Your task to perform on an android device: Search for sushi restaurants on Maps Image 0: 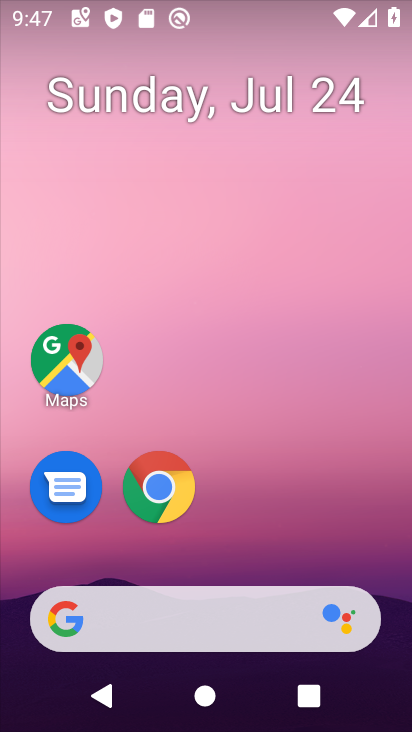
Step 0: click (85, 371)
Your task to perform on an android device: Search for sushi restaurants on Maps Image 1: 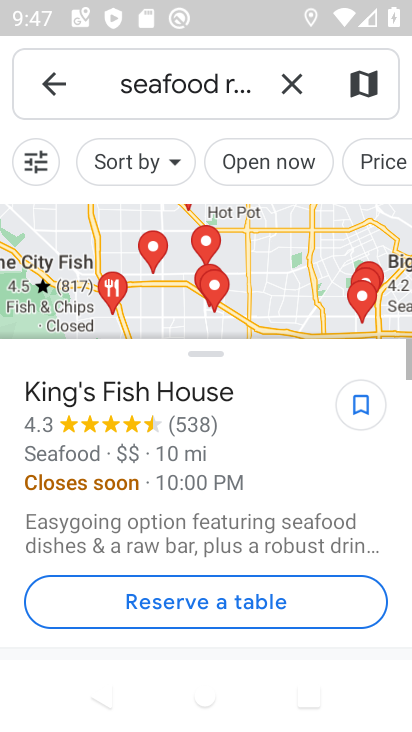
Step 1: click (293, 73)
Your task to perform on an android device: Search for sushi restaurants on Maps Image 2: 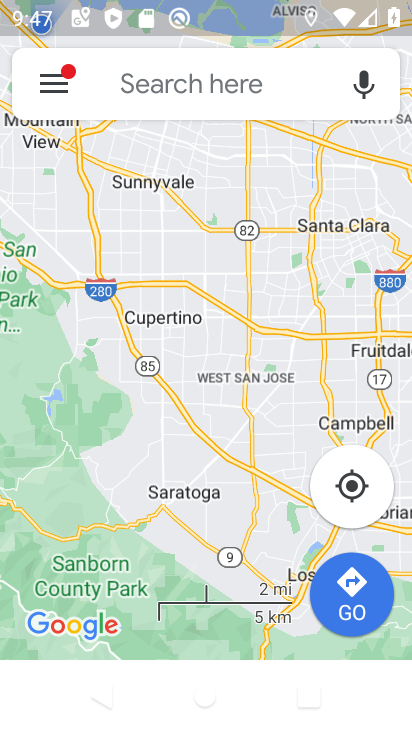
Step 2: click (190, 81)
Your task to perform on an android device: Search for sushi restaurants on Maps Image 3: 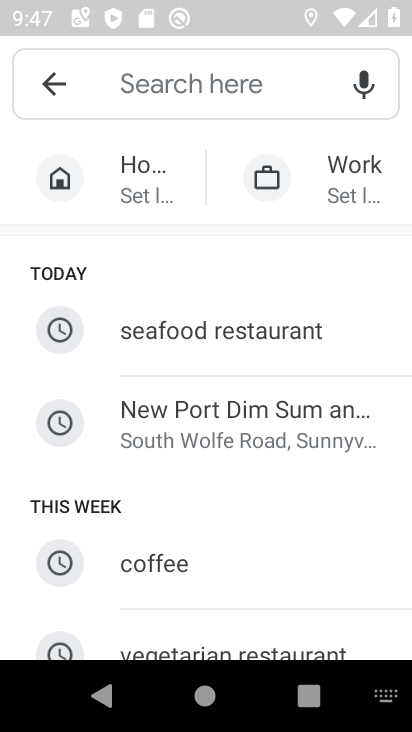
Step 3: type "sushi "
Your task to perform on an android device: Search for sushi restaurants on Maps Image 4: 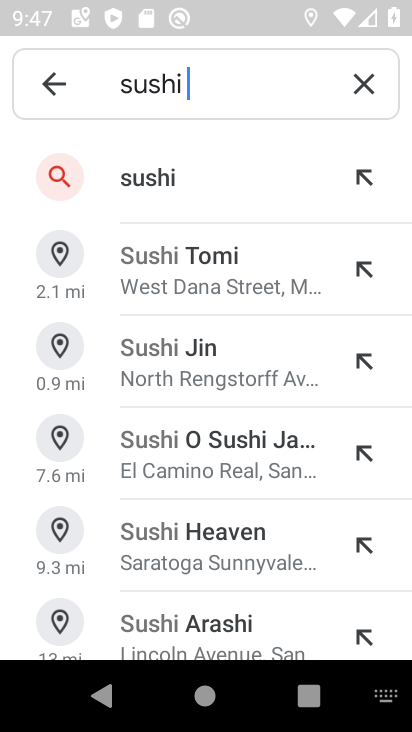
Step 4: drag from (200, 564) to (286, 9)
Your task to perform on an android device: Search for sushi restaurants on Maps Image 5: 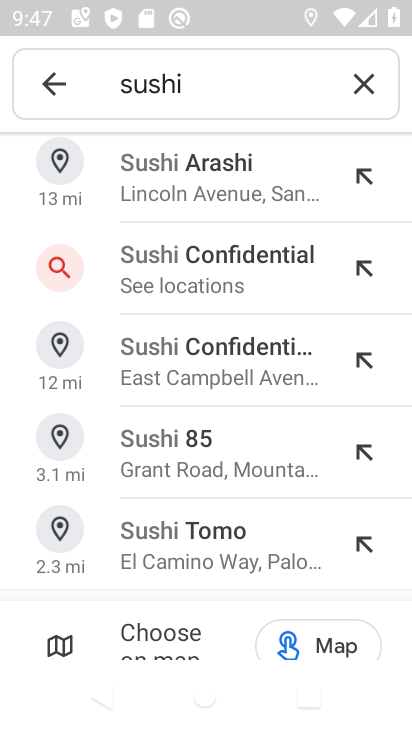
Step 5: drag from (263, 217) to (402, 686)
Your task to perform on an android device: Search for sushi restaurants on Maps Image 6: 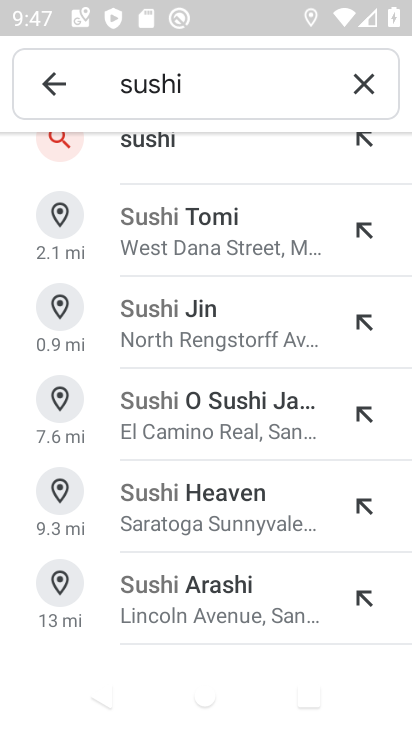
Step 6: type " restaurants"
Your task to perform on an android device: Search for sushi restaurants on Maps Image 7: 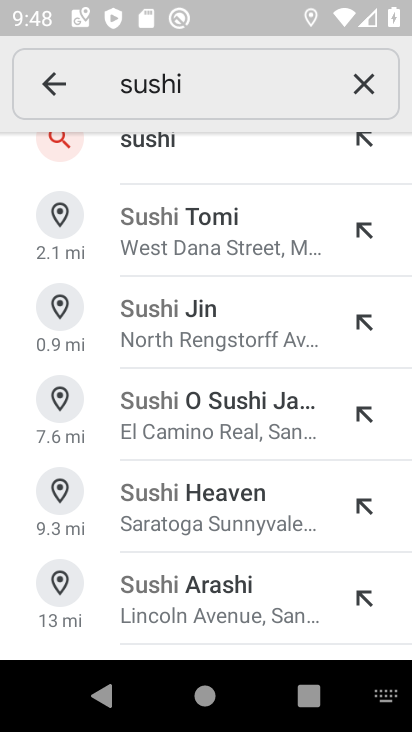
Step 7: click (213, 71)
Your task to perform on an android device: Search for sushi restaurants on Maps Image 8: 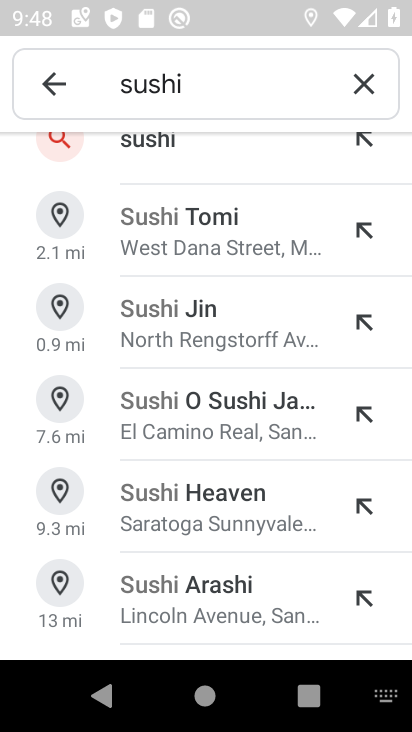
Step 8: type "restaurants"
Your task to perform on an android device: Search for sushi restaurants on Maps Image 9: 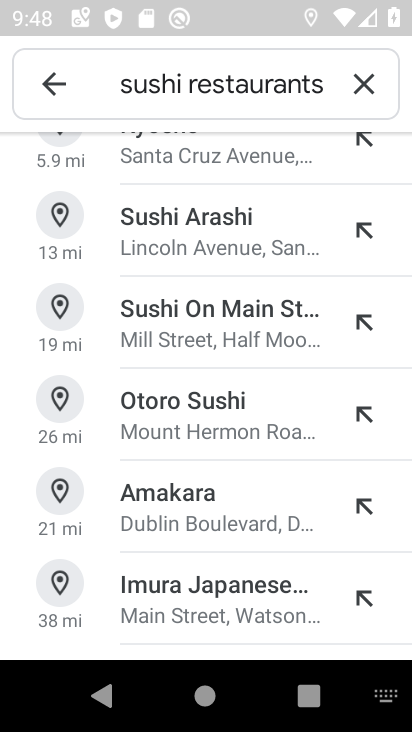
Step 9: drag from (280, 199) to (250, 714)
Your task to perform on an android device: Search for sushi restaurants on Maps Image 10: 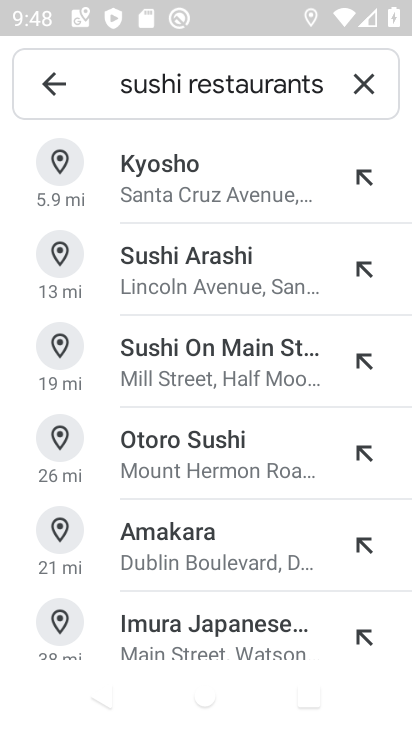
Step 10: drag from (209, 161) to (128, 690)
Your task to perform on an android device: Search for sushi restaurants on Maps Image 11: 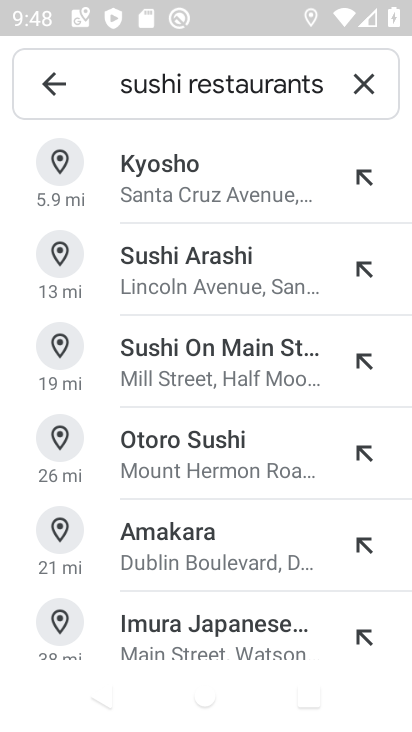
Step 11: click (324, 98)
Your task to perform on an android device: Search for sushi restaurants on Maps Image 12: 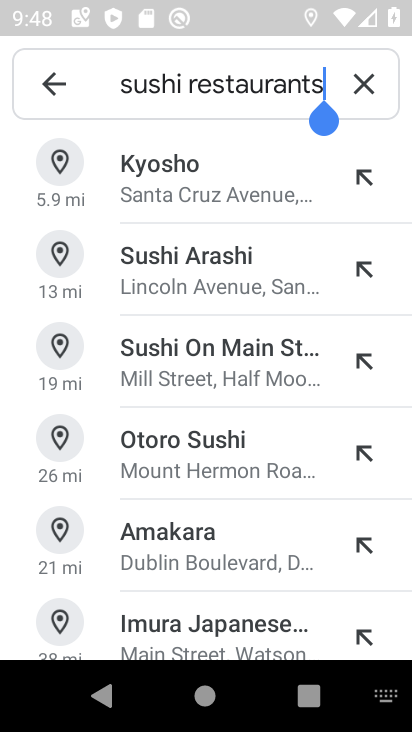
Step 12: drag from (169, 571) to (250, 93)
Your task to perform on an android device: Search for sushi restaurants on Maps Image 13: 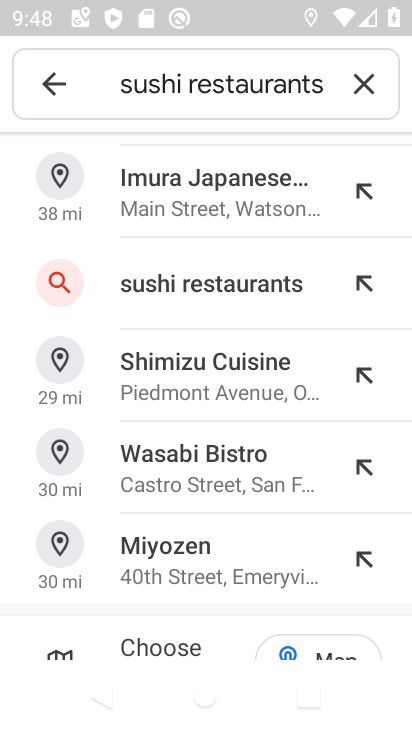
Step 13: click (179, 275)
Your task to perform on an android device: Search for sushi restaurants on Maps Image 14: 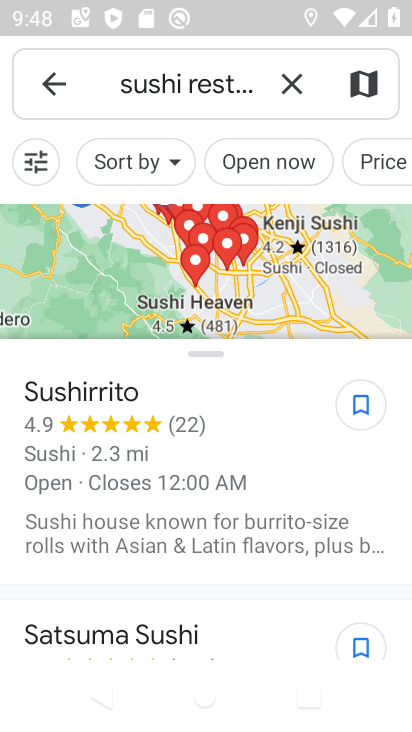
Step 14: task complete